Your task to perform on an android device: What's the weather going to be this weekend? Image 0: 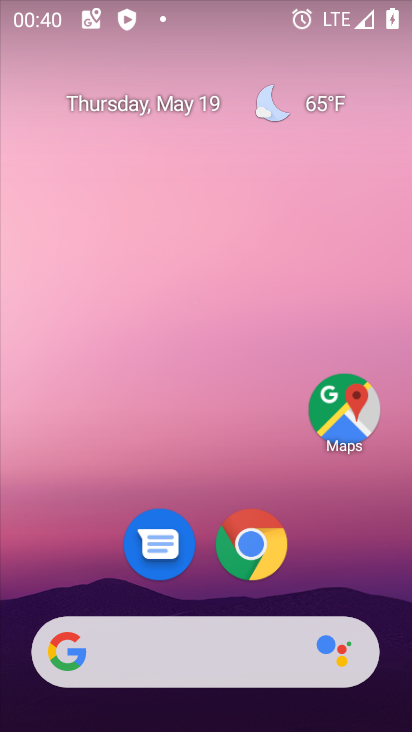
Step 0: click (258, 638)
Your task to perform on an android device: What's the weather going to be this weekend? Image 1: 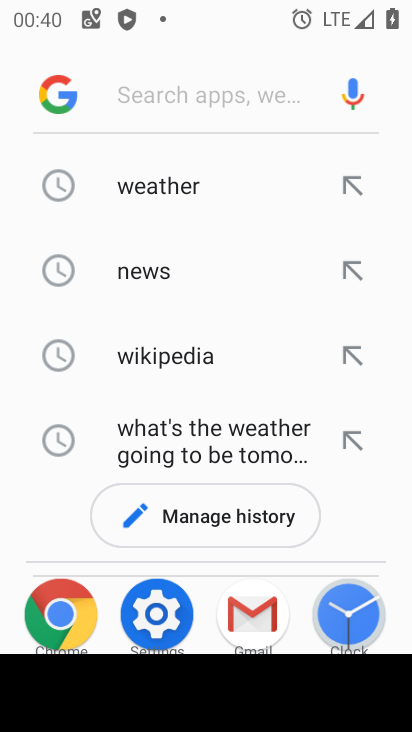
Step 1: click (201, 197)
Your task to perform on an android device: What's the weather going to be this weekend? Image 2: 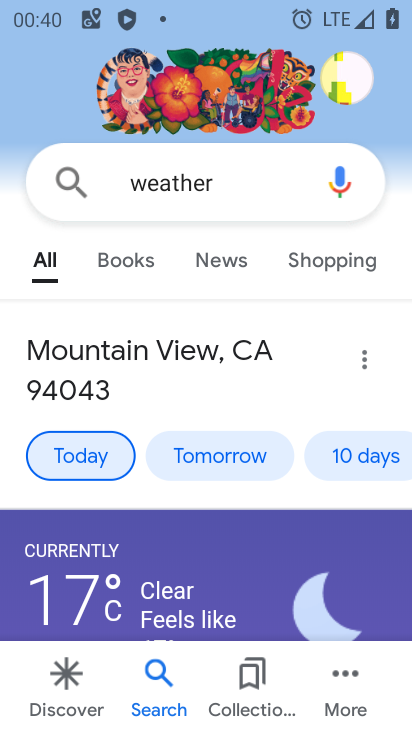
Step 2: drag from (238, 572) to (252, 447)
Your task to perform on an android device: What's the weather going to be this weekend? Image 3: 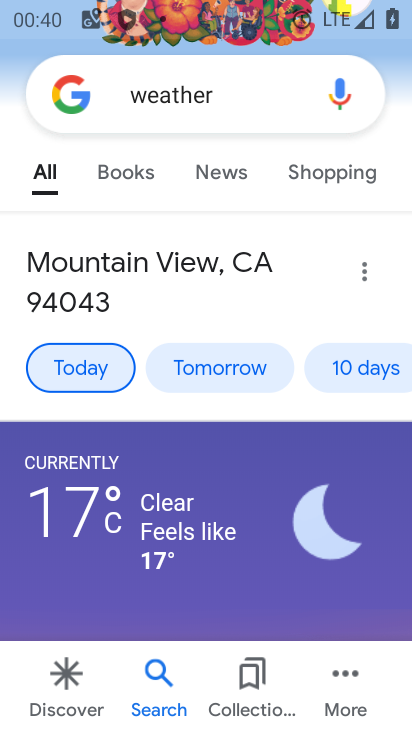
Step 3: click (358, 369)
Your task to perform on an android device: What's the weather going to be this weekend? Image 4: 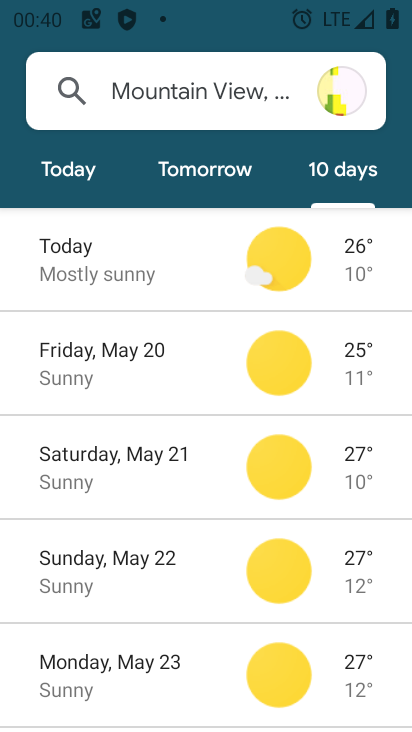
Step 4: task complete